Your task to perform on an android device: What is the news today? Image 0: 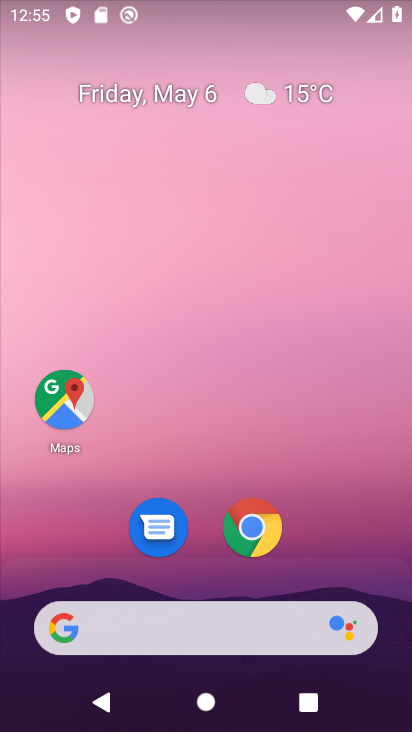
Step 0: click (204, 655)
Your task to perform on an android device: What is the news today? Image 1: 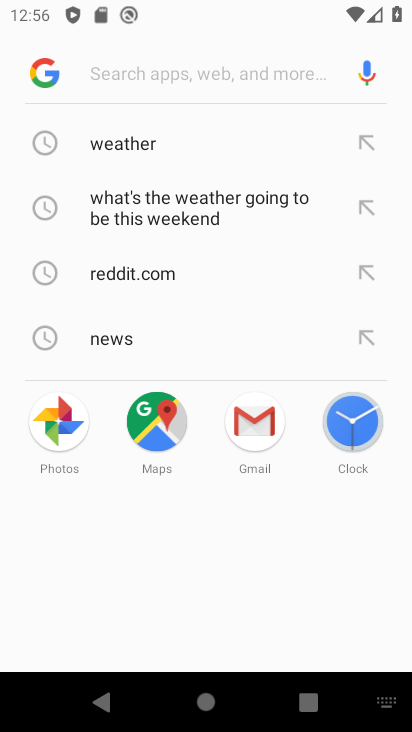
Step 1: click (154, 355)
Your task to perform on an android device: What is the news today? Image 2: 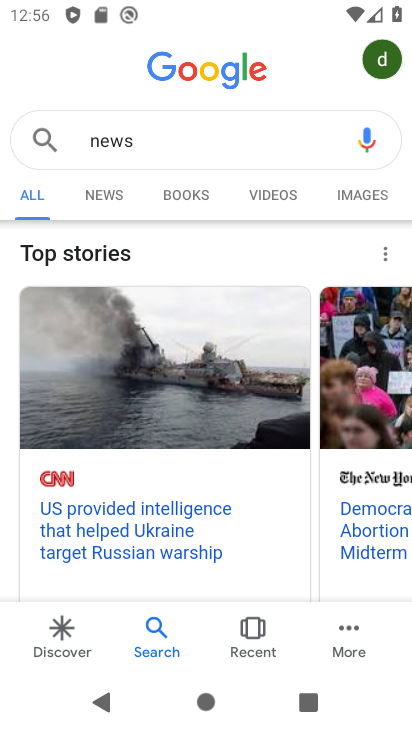
Step 2: task complete